Your task to perform on an android device: Do I have any events tomorrow? Image 0: 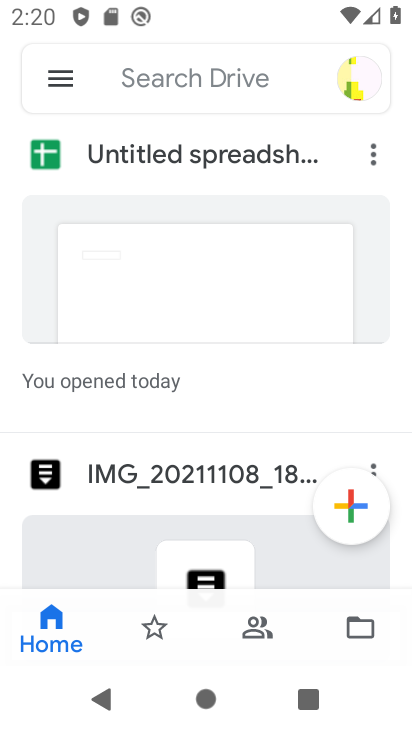
Step 0: press home button
Your task to perform on an android device: Do I have any events tomorrow? Image 1: 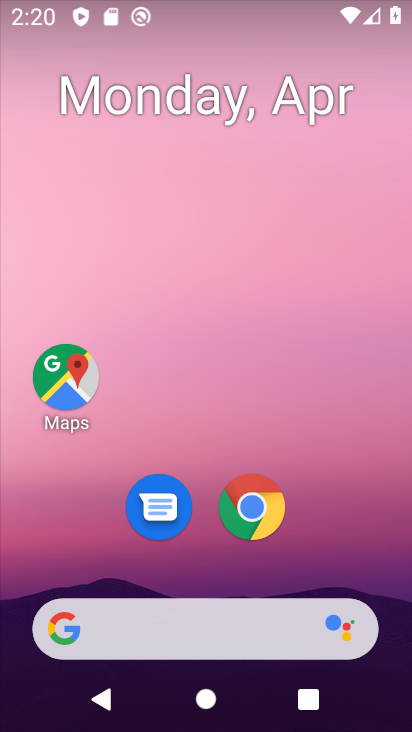
Step 1: drag from (389, 602) to (280, 151)
Your task to perform on an android device: Do I have any events tomorrow? Image 2: 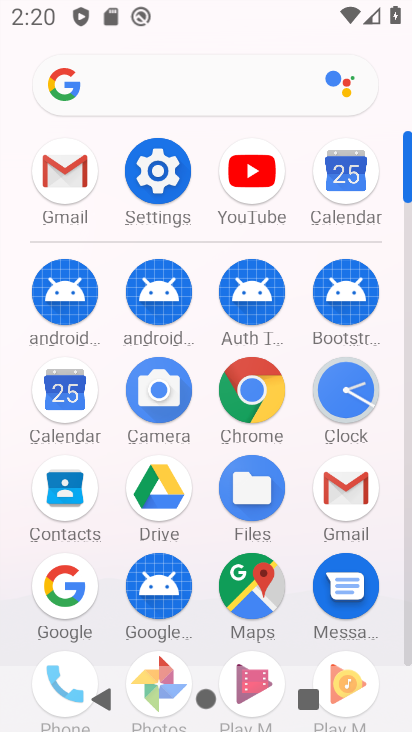
Step 2: click (406, 632)
Your task to perform on an android device: Do I have any events tomorrow? Image 3: 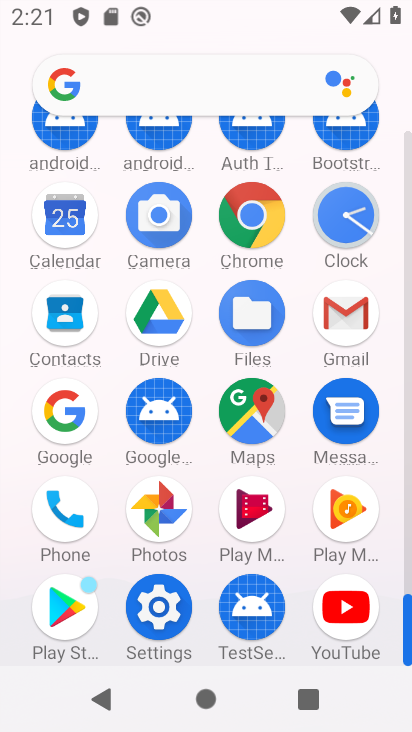
Step 3: click (63, 223)
Your task to perform on an android device: Do I have any events tomorrow? Image 4: 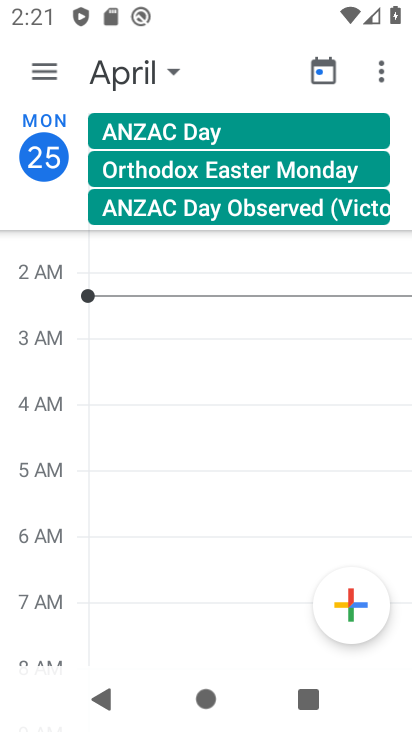
Step 4: click (50, 73)
Your task to perform on an android device: Do I have any events tomorrow? Image 5: 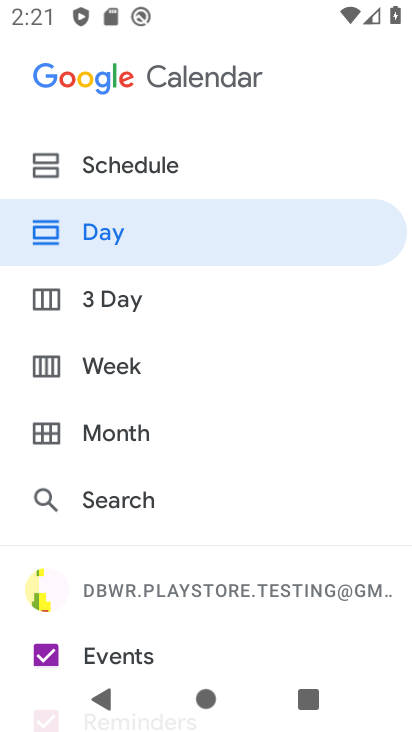
Step 5: click (100, 221)
Your task to perform on an android device: Do I have any events tomorrow? Image 6: 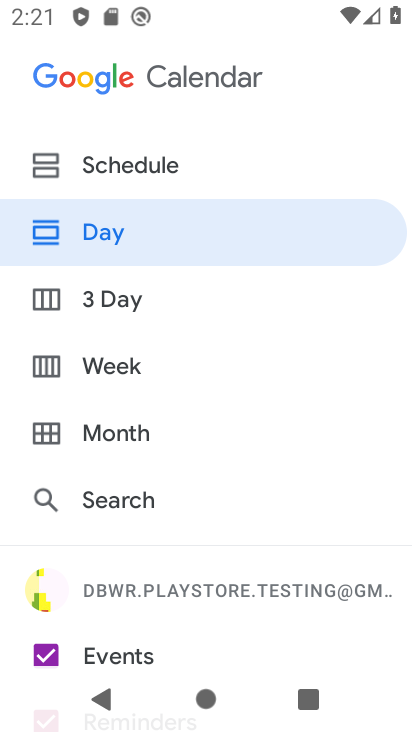
Step 6: click (147, 231)
Your task to perform on an android device: Do I have any events tomorrow? Image 7: 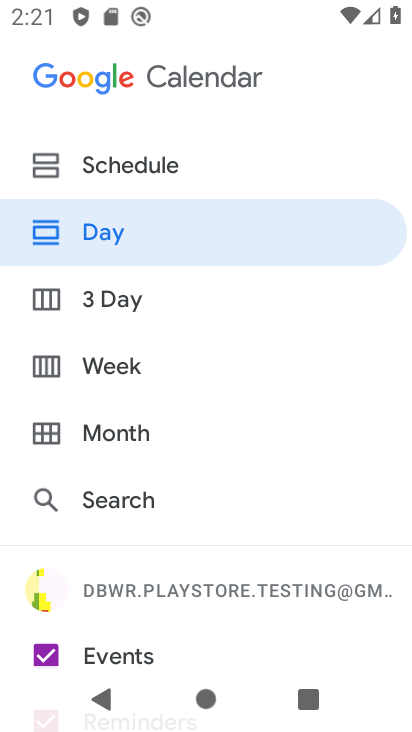
Step 7: click (147, 231)
Your task to perform on an android device: Do I have any events tomorrow? Image 8: 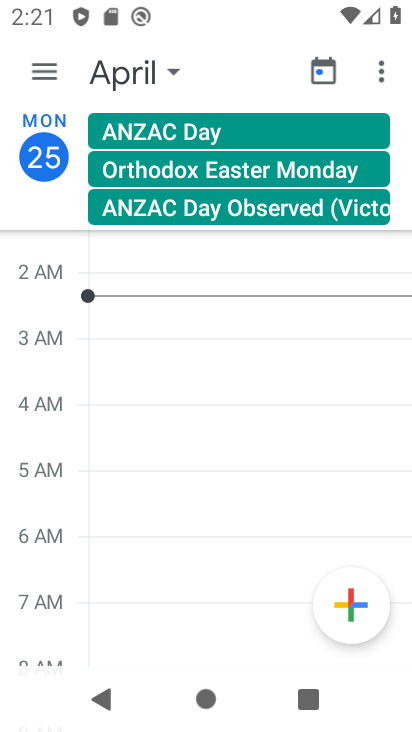
Step 8: click (171, 65)
Your task to perform on an android device: Do I have any events tomorrow? Image 9: 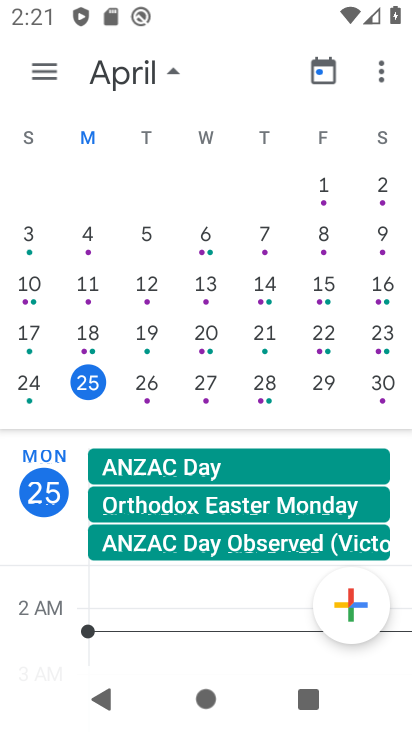
Step 9: click (144, 387)
Your task to perform on an android device: Do I have any events tomorrow? Image 10: 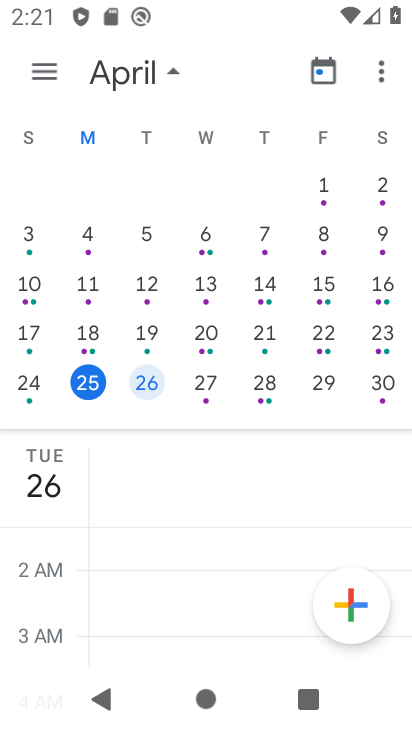
Step 10: task complete